Your task to perform on an android device: Open Amazon Image 0: 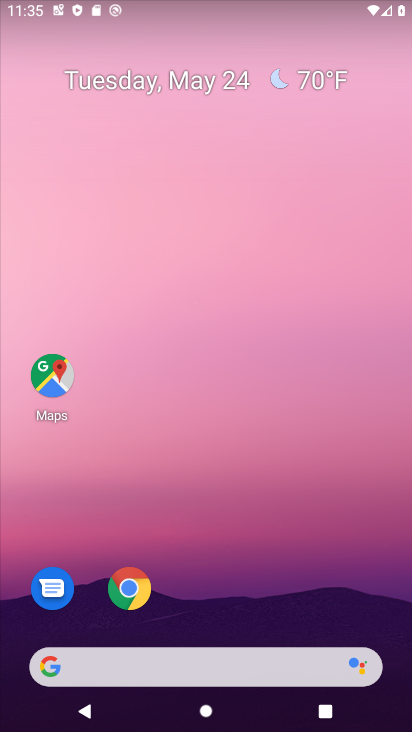
Step 0: press home button
Your task to perform on an android device: Open Amazon Image 1: 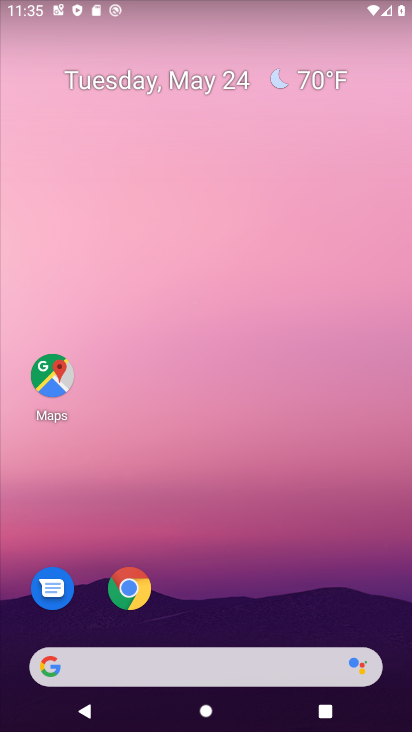
Step 1: click (126, 581)
Your task to perform on an android device: Open Amazon Image 2: 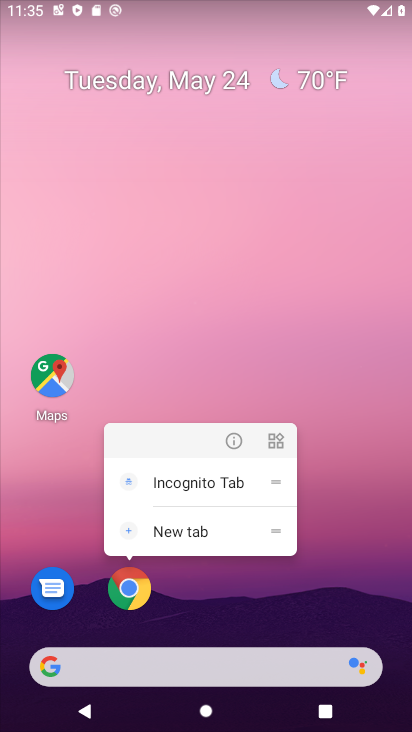
Step 2: click (129, 583)
Your task to perform on an android device: Open Amazon Image 3: 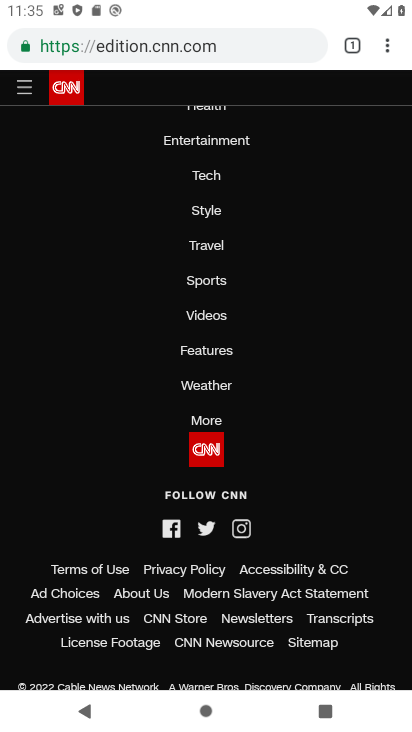
Step 3: click (347, 42)
Your task to perform on an android device: Open Amazon Image 4: 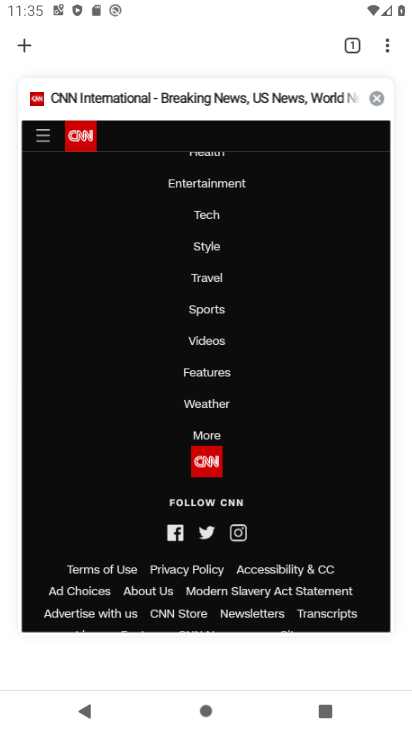
Step 4: click (376, 98)
Your task to perform on an android device: Open Amazon Image 5: 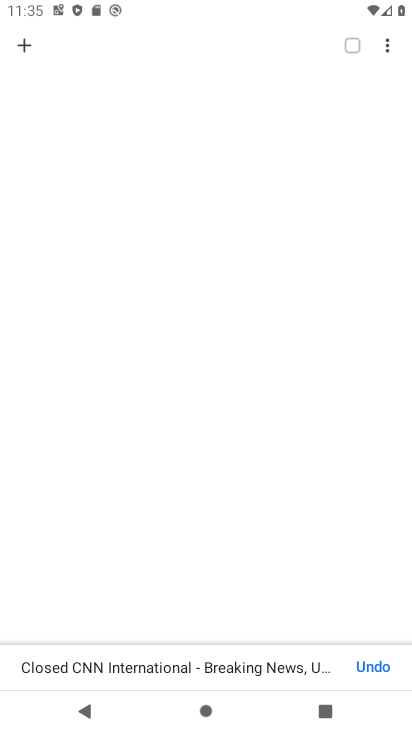
Step 5: click (28, 46)
Your task to perform on an android device: Open Amazon Image 6: 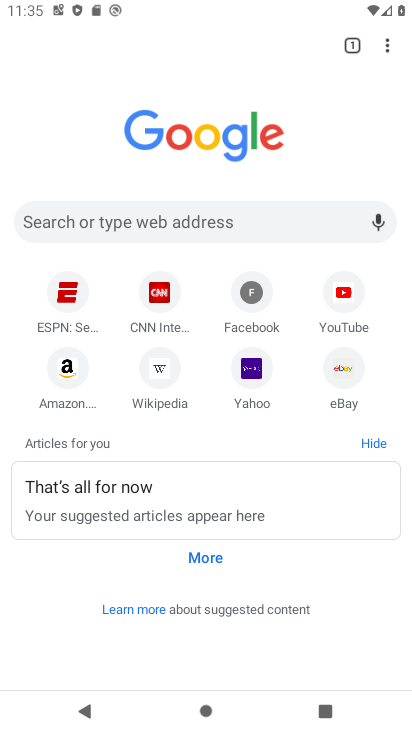
Step 6: click (63, 361)
Your task to perform on an android device: Open Amazon Image 7: 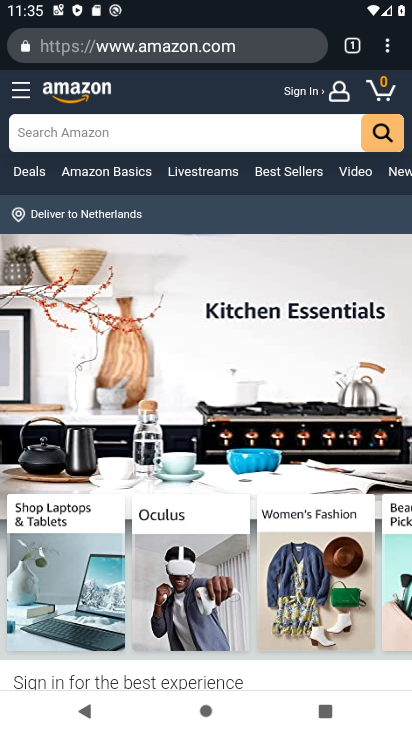
Step 7: task complete